Your task to perform on an android device: Open ESPN.com Image 0: 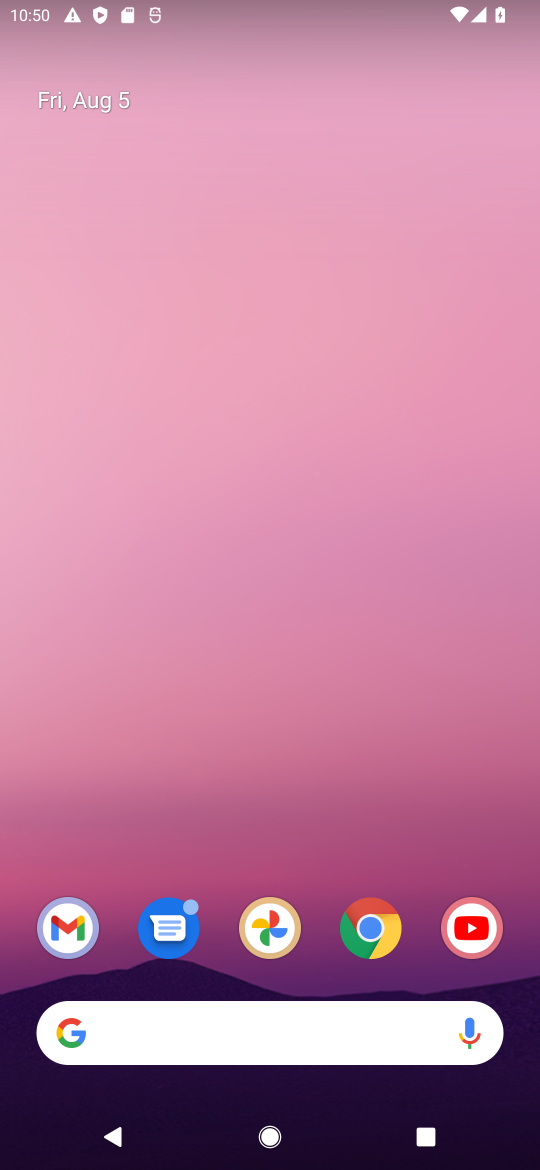
Step 0: drag from (256, 977) to (270, 34)
Your task to perform on an android device: Open ESPN.com Image 1: 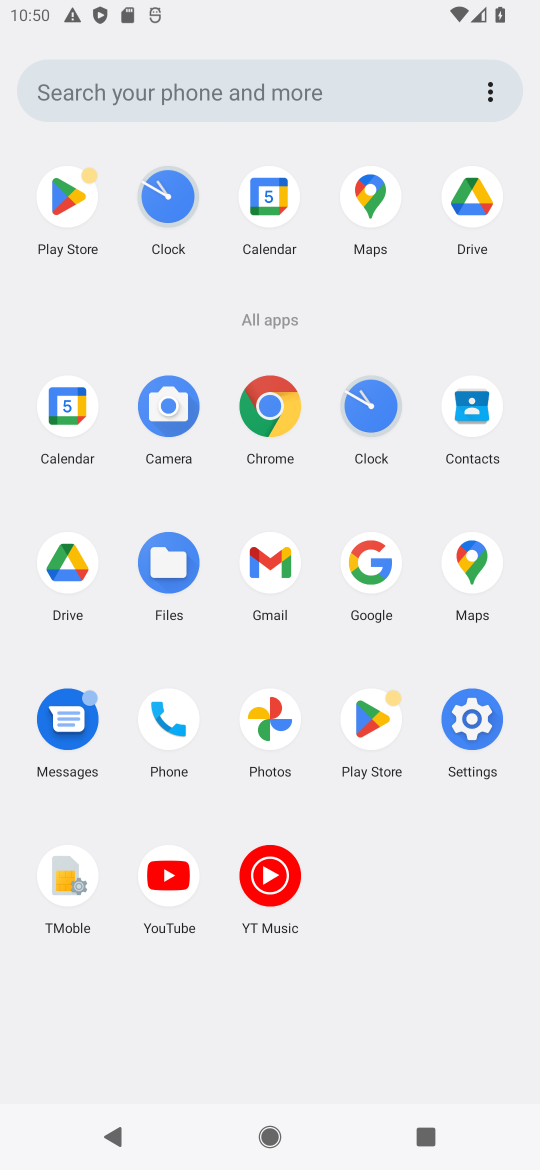
Step 1: click (272, 428)
Your task to perform on an android device: Open ESPN.com Image 2: 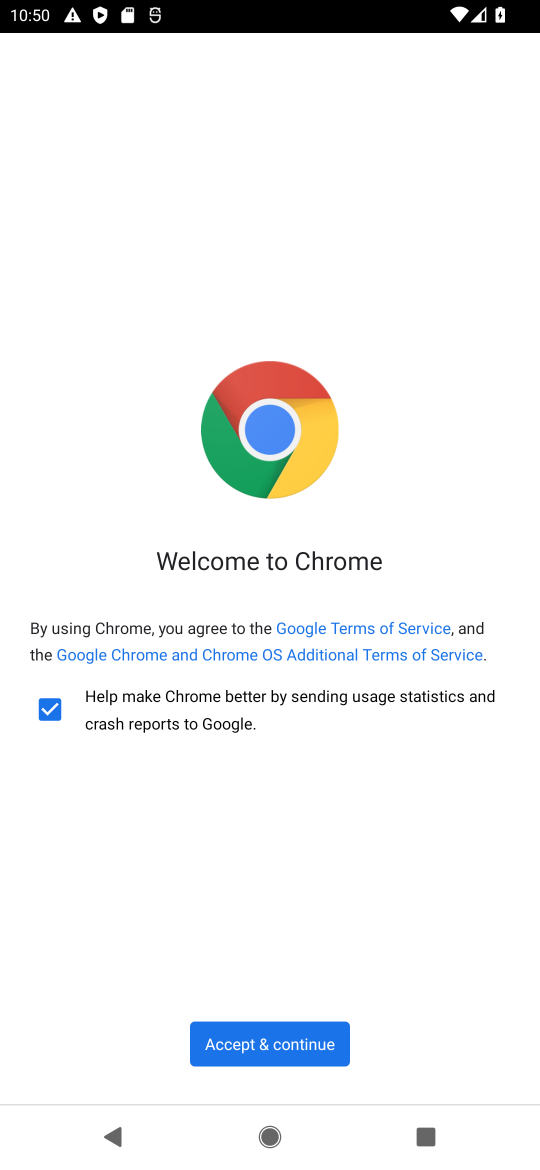
Step 2: click (327, 1038)
Your task to perform on an android device: Open ESPN.com Image 3: 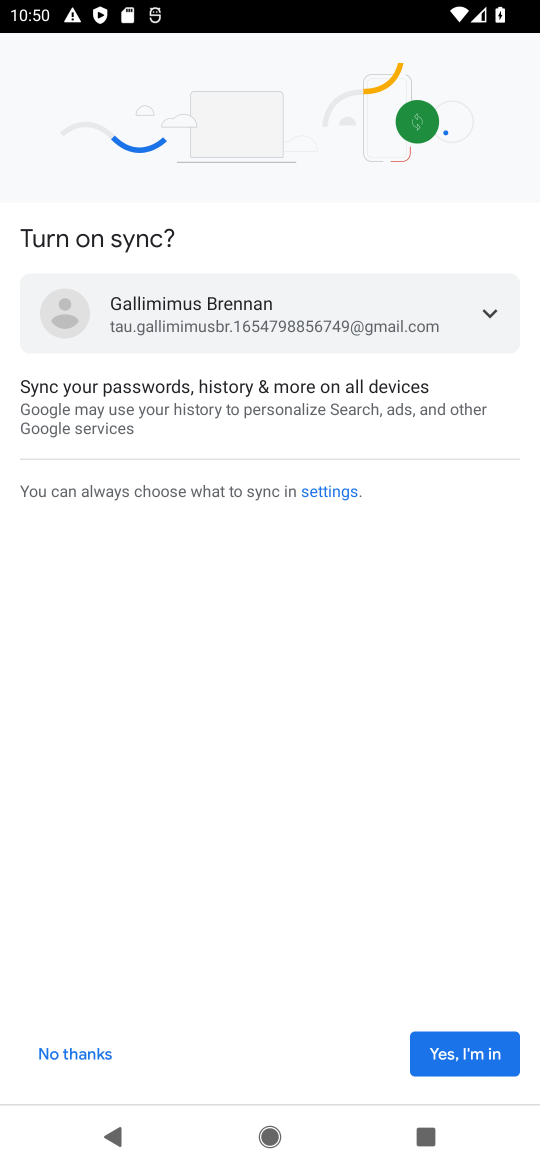
Step 3: click (433, 1061)
Your task to perform on an android device: Open ESPN.com Image 4: 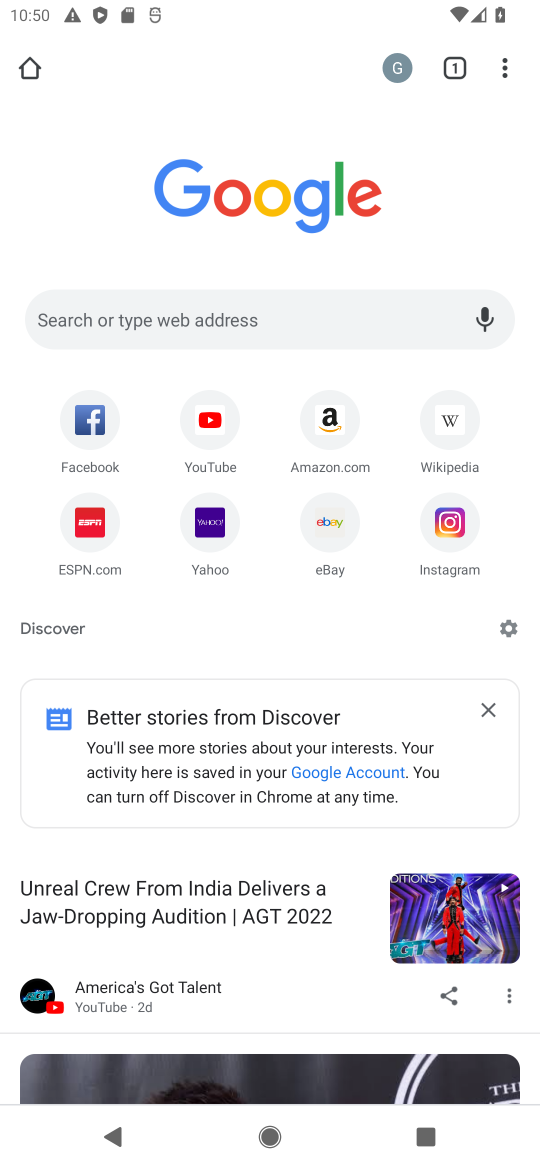
Step 4: click (87, 520)
Your task to perform on an android device: Open ESPN.com Image 5: 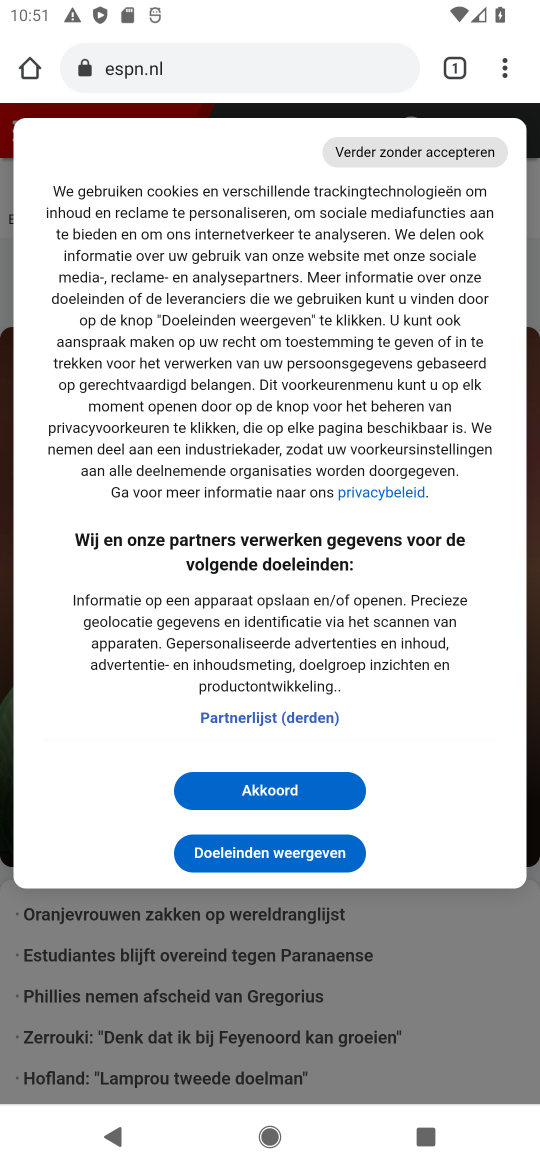
Step 5: click (282, 780)
Your task to perform on an android device: Open ESPN.com Image 6: 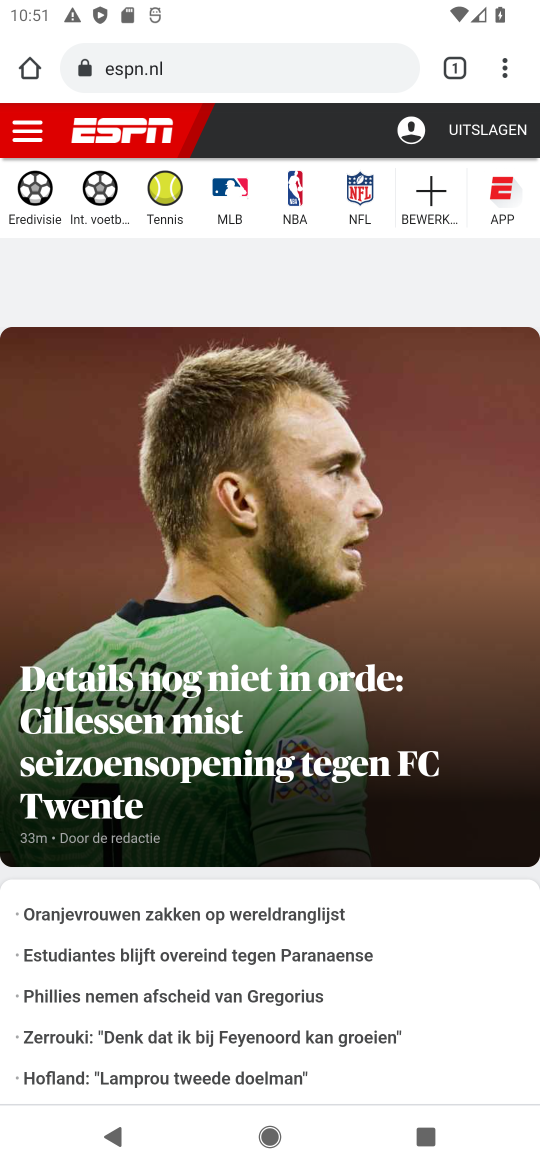
Step 6: task complete